Your task to perform on an android device: turn off wifi Image 0: 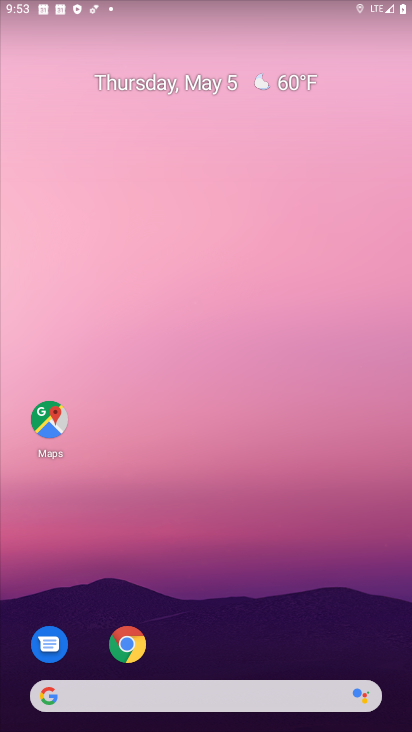
Step 0: drag from (182, 620) to (261, 70)
Your task to perform on an android device: turn off wifi Image 1: 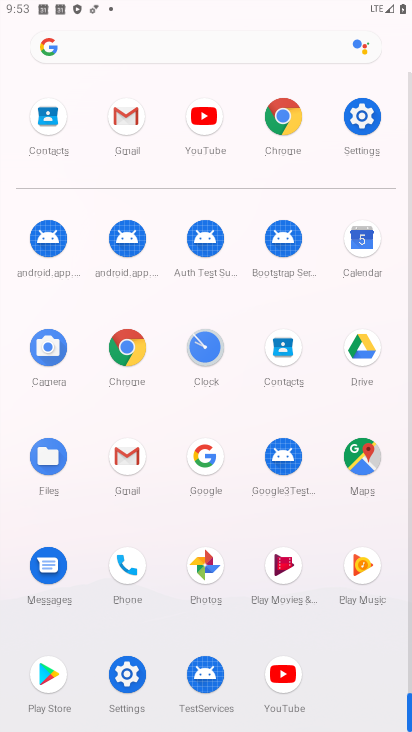
Step 1: click (358, 133)
Your task to perform on an android device: turn off wifi Image 2: 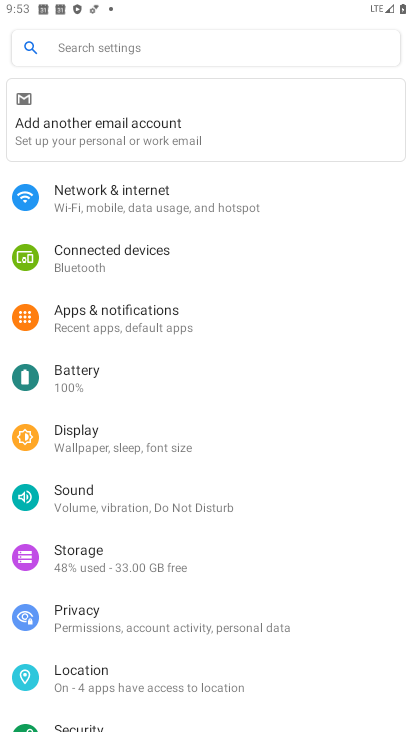
Step 2: click (118, 207)
Your task to perform on an android device: turn off wifi Image 3: 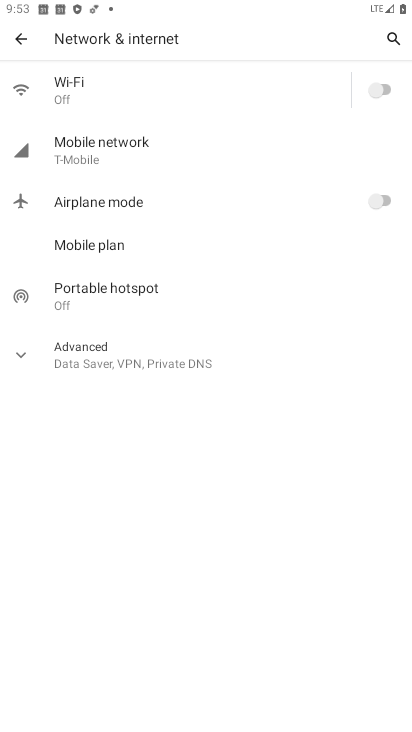
Step 3: click (136, 82)
Your task to perform on an android device: turn off wifi Image 4: 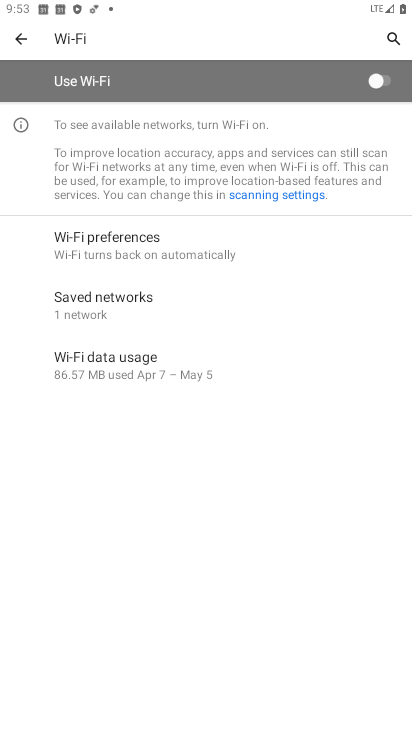
Step 4: task complete